Your task to perform on an android device: turn on the 24-hour format for clock Image 0: 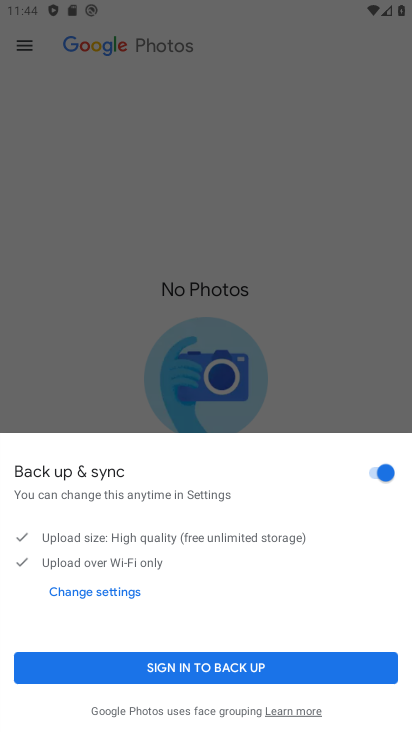
Step 0: press home button
Your task to perform on an android device: turn on the 24-hour format for clock Image 1: 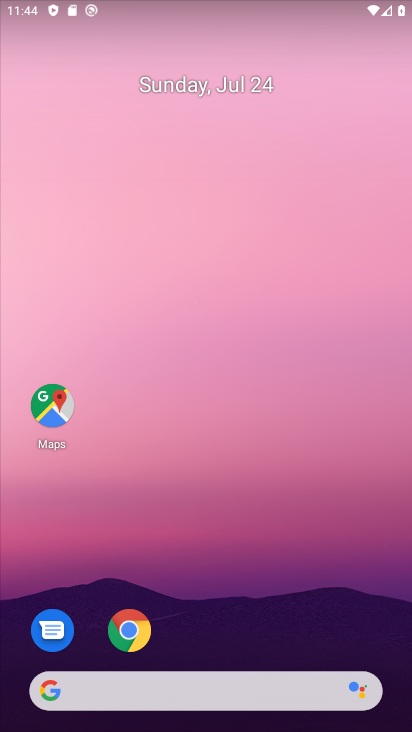
Step 1: drag from (258, 632) to (221, 81)
Your task to perform on an android device: turn on the 24-hour format for clock Image 2: 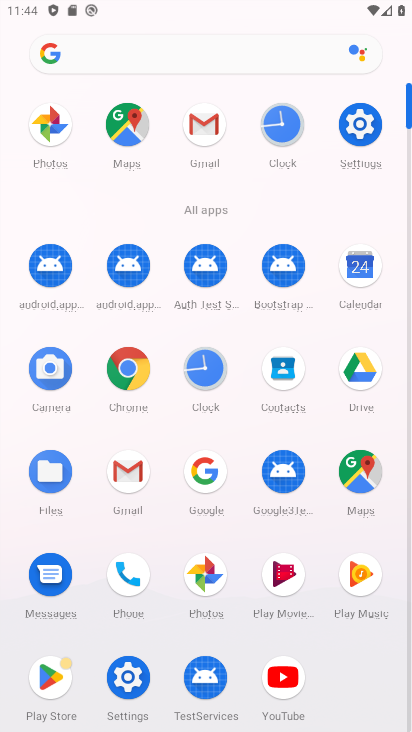
Step 2: click (284, 116)
Your task to perform on an android device: turn on the 24-hour format for clock Image 3: 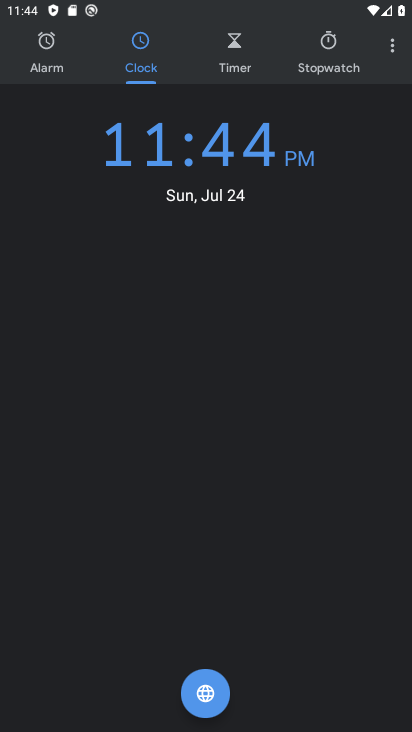
Step 3: click (398, 40)
Your task to perform on an android device: turn on the 24-hour format for clock Image 4: 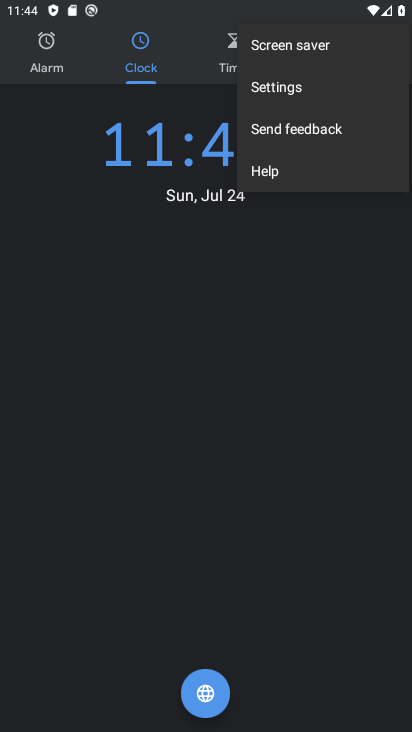
Step 4: click (298, 89)
Your task to perform on an android device: turn on the 24-hour format for clock Image 5: 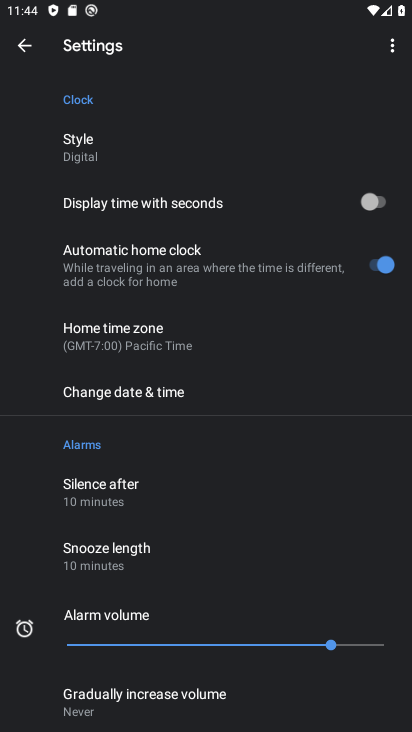
Step 5: click (140, 390)
Your task to perform on an android device: turn on the 24-hour format for clock Image 6: 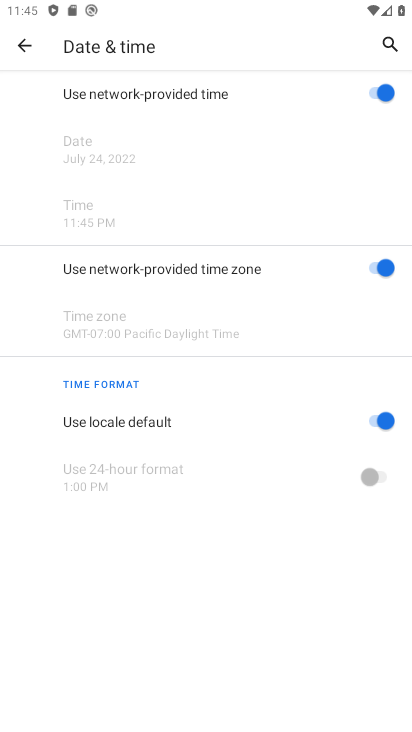
Step 6: click (385, 421)
Your task to perform on an android device: turn on the 24-hour format for clock Image 7: 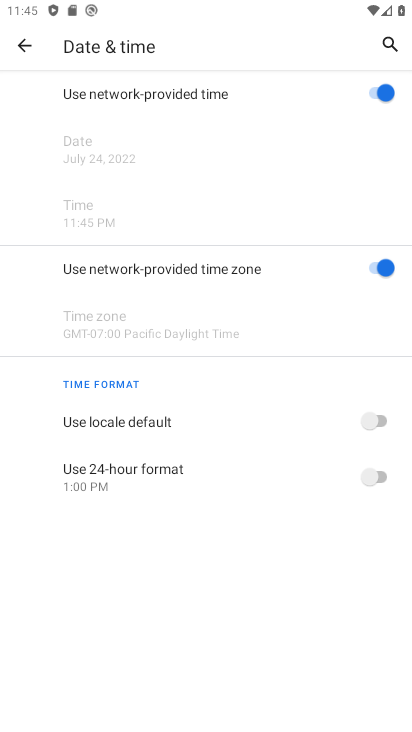
Step 7: click (384, 478)
Your task to perform on an android device: turn on the 24-hour format for clock Image 8: 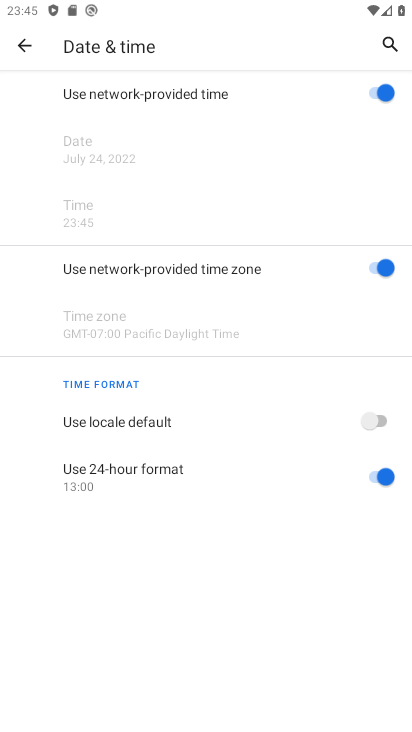
Step 8: task complete